Your task to perform on an android device: What's the weather today? Image 0: 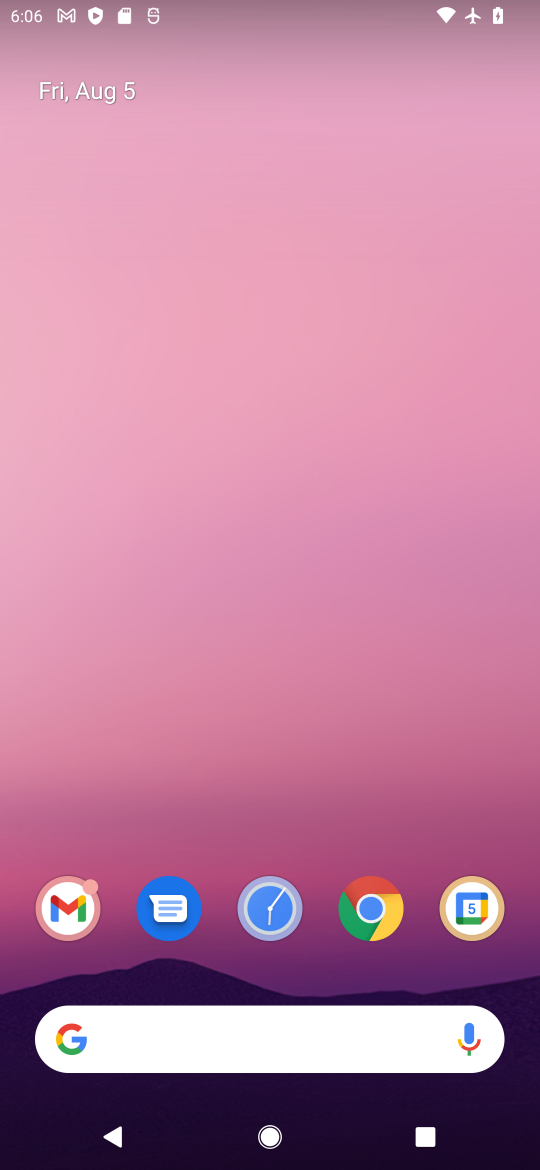
Step 0: drag from (272, 851) to (280, 304)
Your task to perform on an android device: What's the weather today? Image 1: 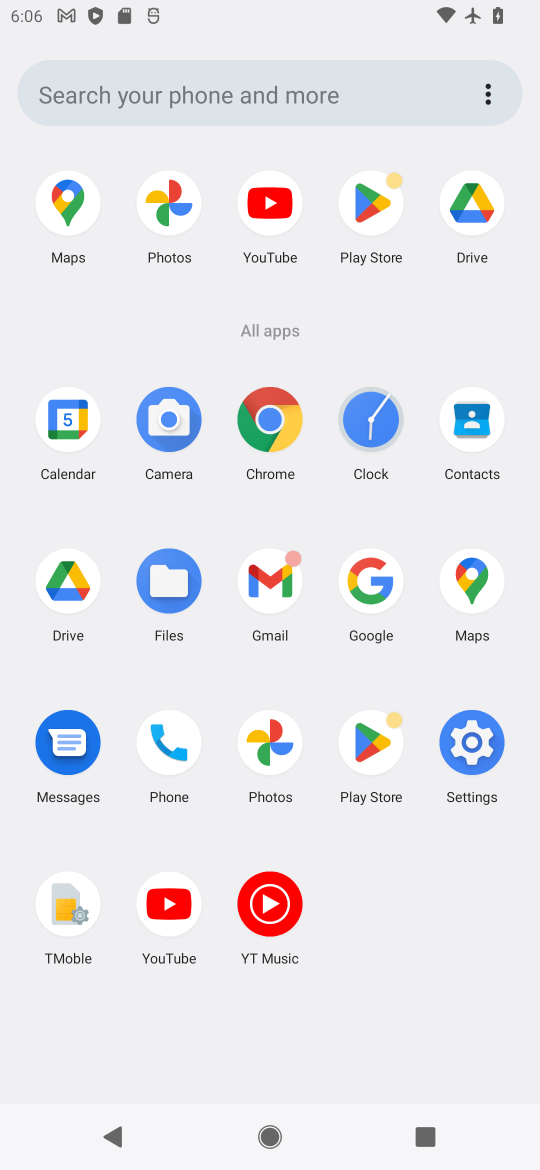
Step 1: click (359, 575)
Your task to perform on an android device: What's the weather today? Image 2: 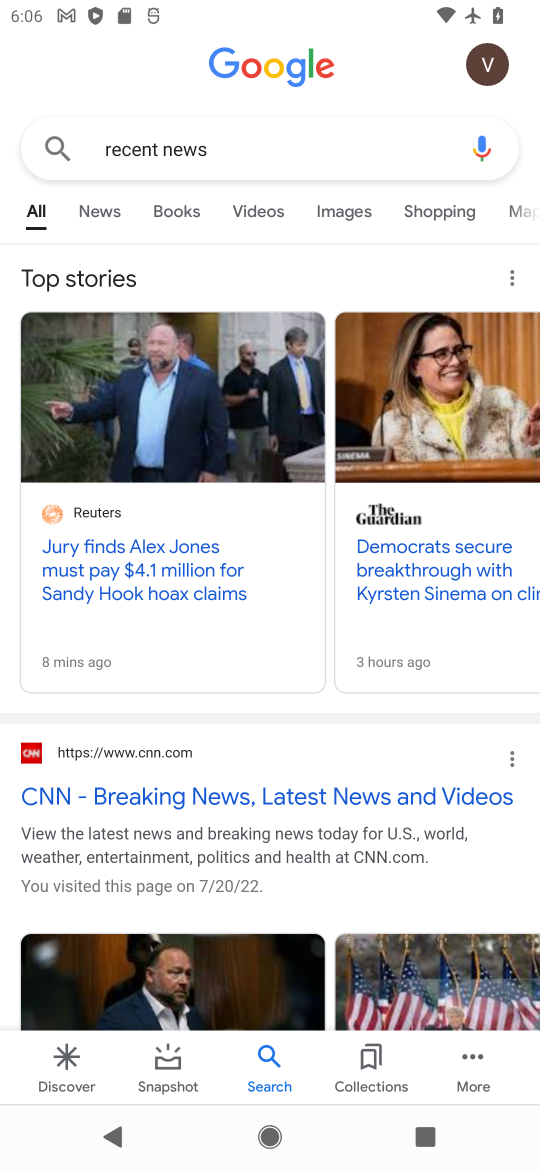
Step 2: click (216, 152)
Your task to perform on an android device: What's the weather today? Image 3: 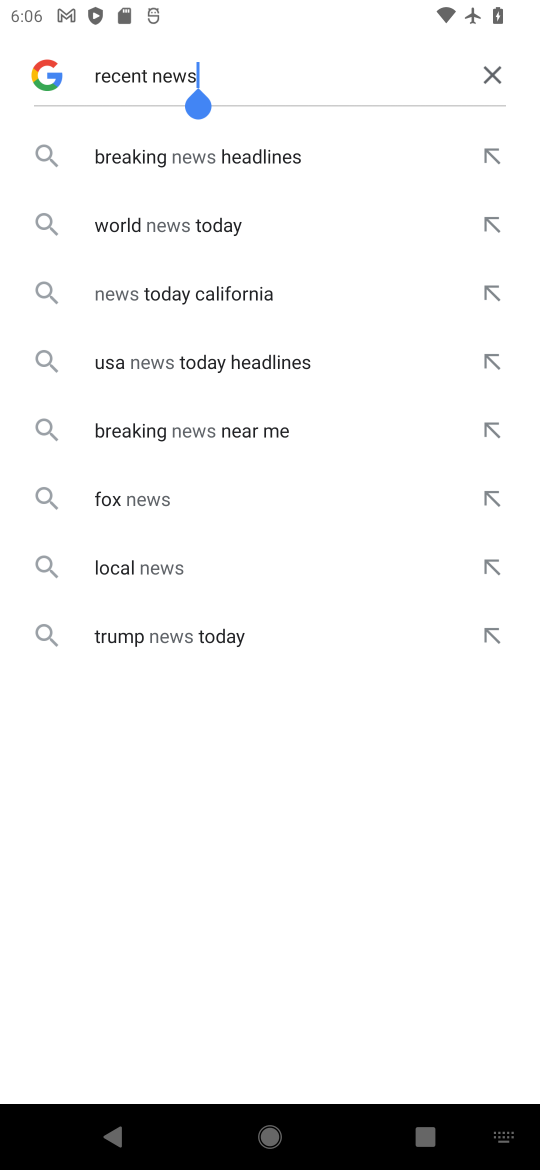
Step 3: click (499, 74)
Your task to perform on an android device: What's the weather today? Image 4: 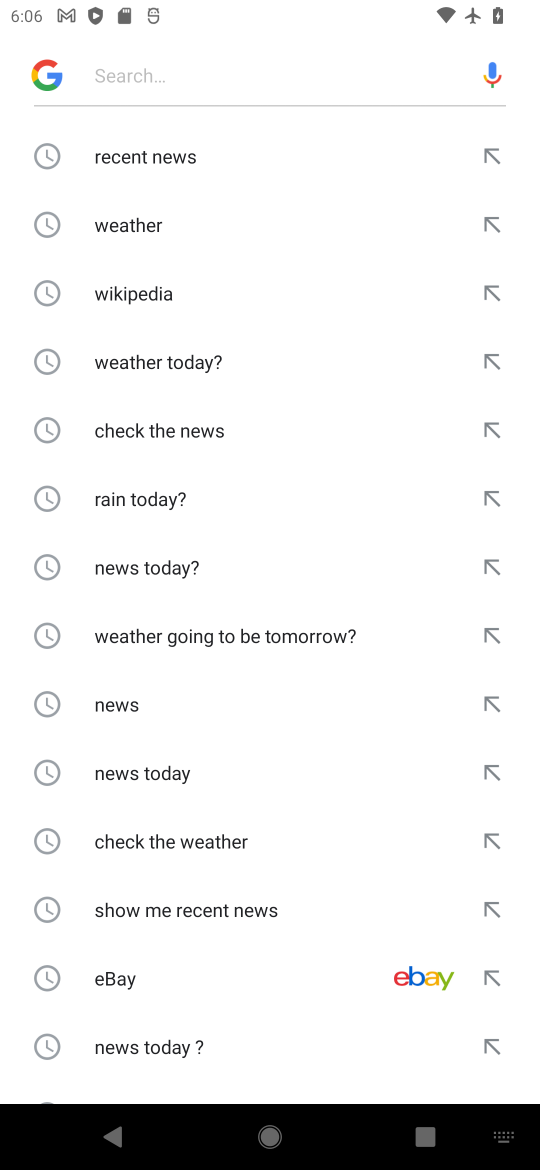
Step 4: click (156, 227)
Your task to perform on an android device: What's the weather today? Image 5: 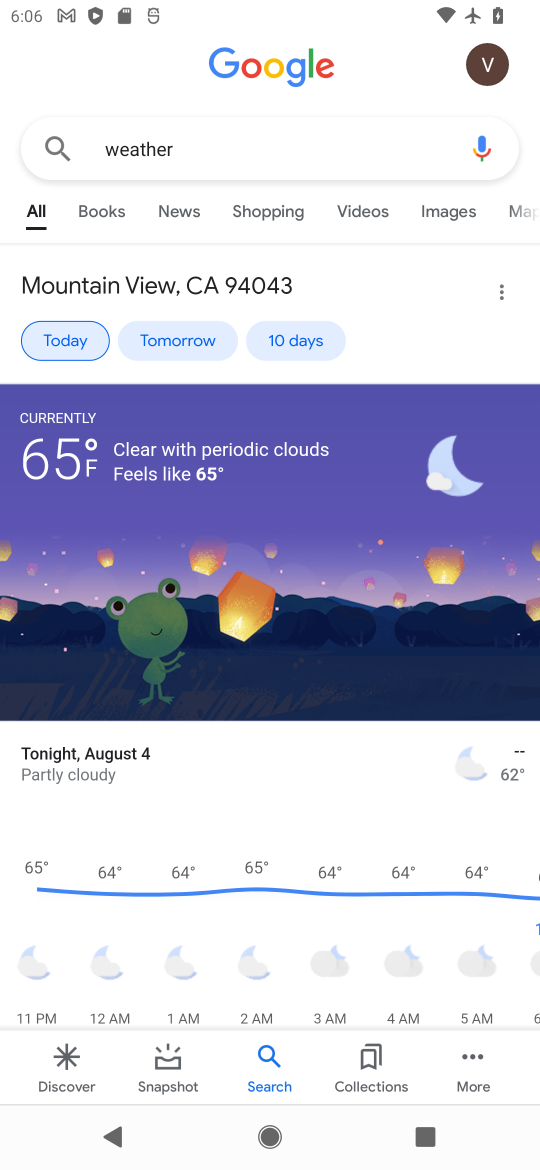
Step 5: task complete